Your task to perform on an android device: turn on translation in the chrome app Image 0: 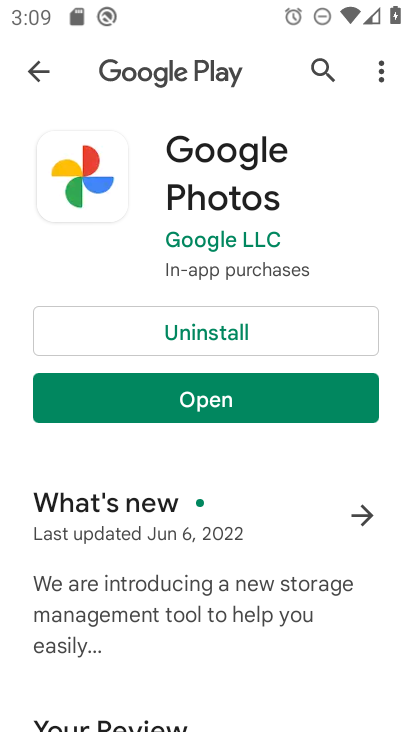
Step 0: press home button
Your task to perform on an android device: turn on translation in the chrome app Image 1: 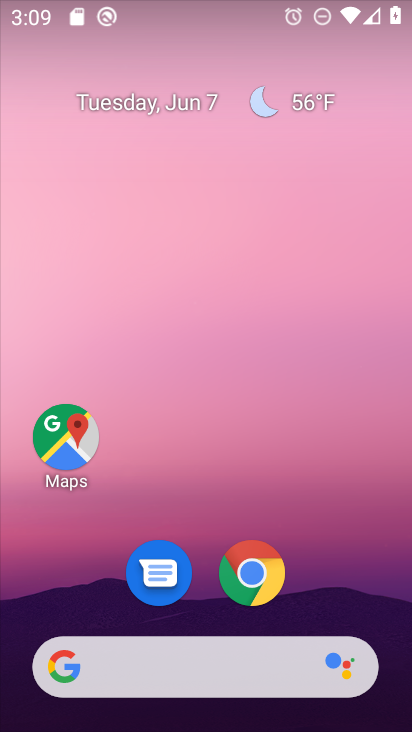
Step 1: click (267, 567)
Your task to perform on an android device: turn on translation in the chrome app Image 2: 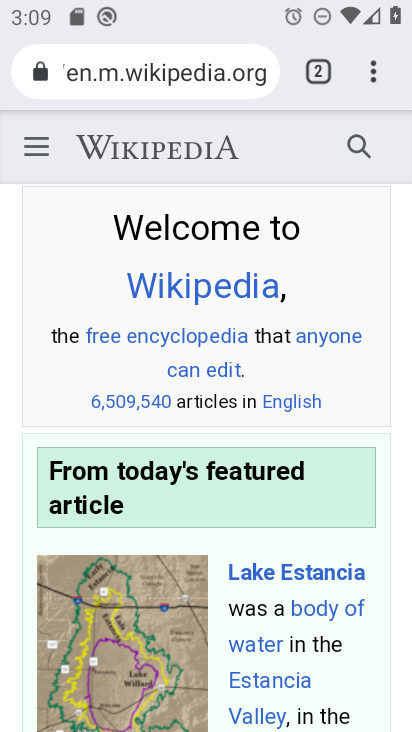
Step 2: click (382, 73)
Your task to perform on an android device: turn on translation in the chrome app Image 3: 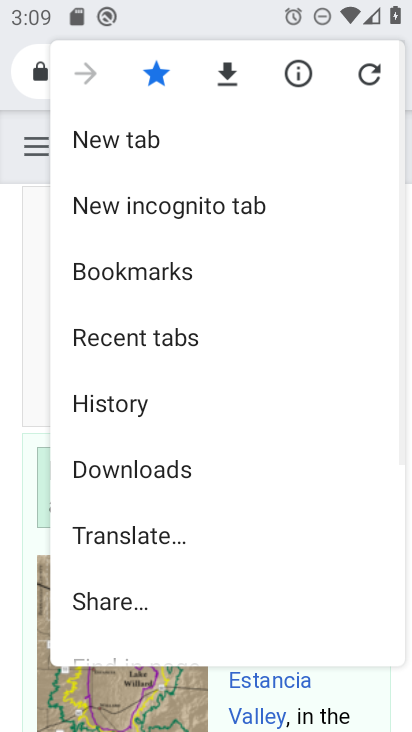
Step 3: drag from (164, 617) to (156, 261)
Your task to perform on an android device: turn on translation in the chrome app Image 4: 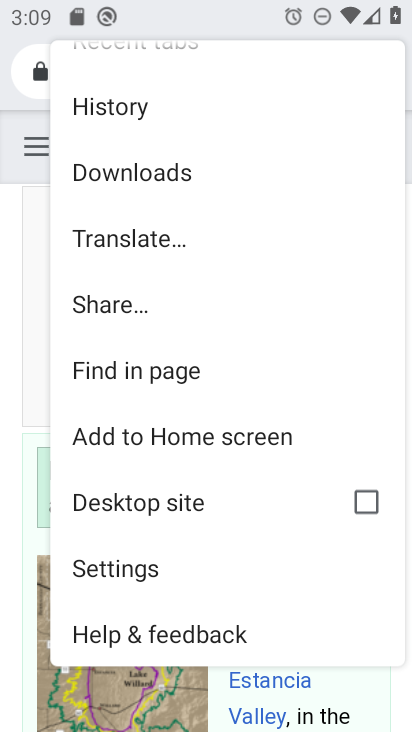
Step 4: click (173, 567)
Your task to perform on an android device: turn on translation in the chrome app Image 5: 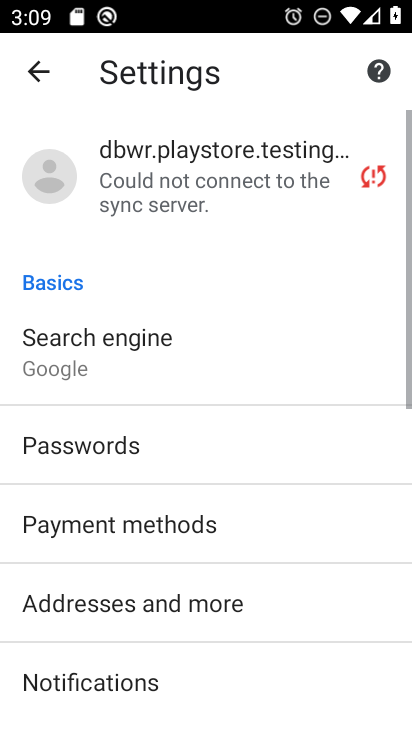
Step 5: drag from (184, 635) to (173, 197)
Your task to perform on an android device: turn on translation in the chrome app Image 6: 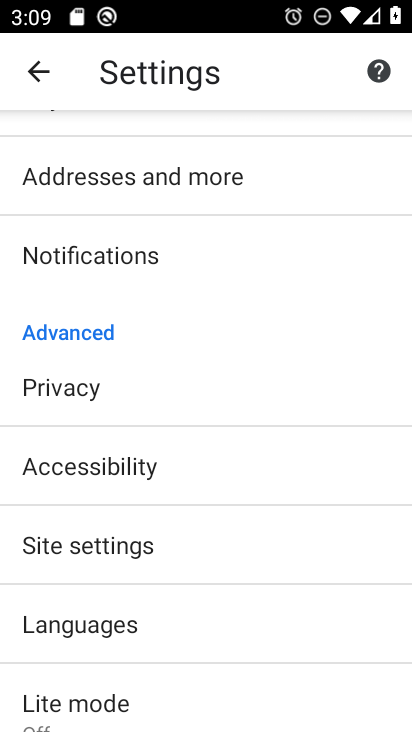
Step 6: click (123, 646)
Your task to perform on an android device: turn on translation in the chrome app Image 7: 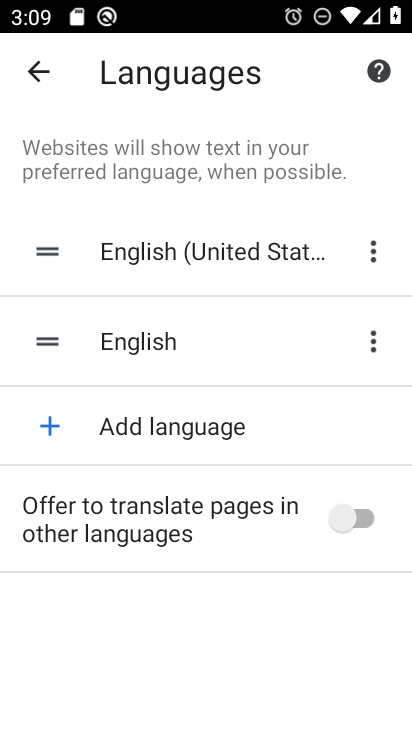
Step 7: click (379, 518)
Your task to perform on an android device: turn on translation in the chrome app Image 8: 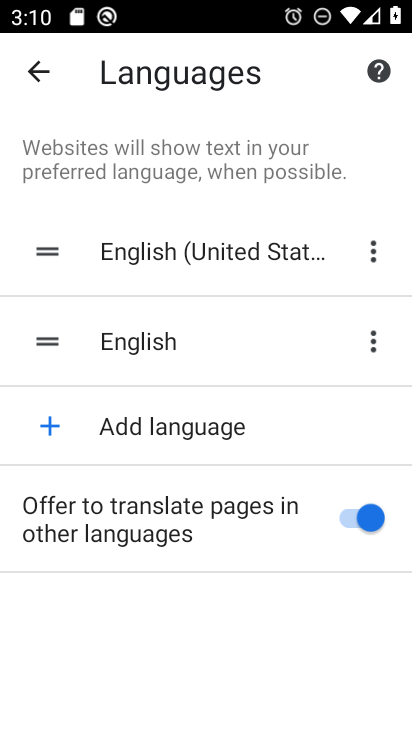
Step 8: task complete